Your task to perform on an android device: Open notification settings Image 0: 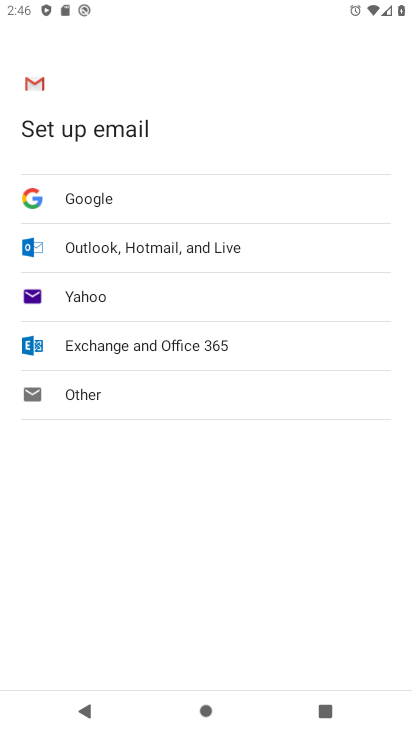
Step 0: press home button
Your task to perform on an android device: Open notification settings Image 1: 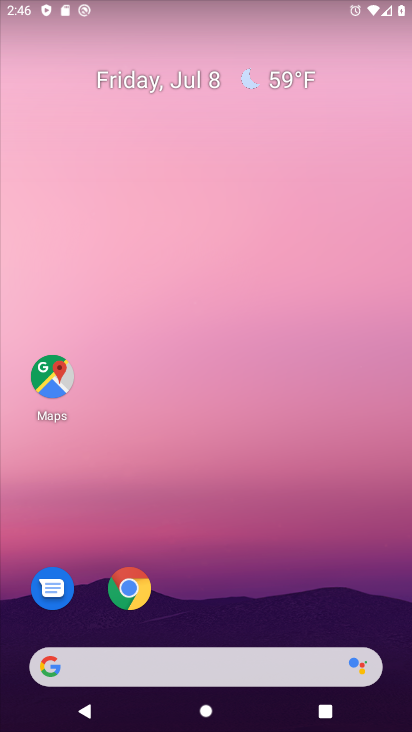
Step 1: drag from (174, 613) to (177, 60)
Your task to perform on an android device: Open notification settings Image 2: 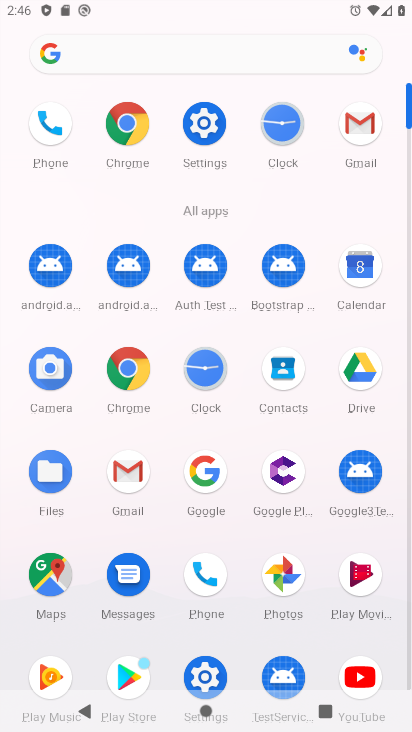
Step 2: click (204, 669)
Your task to perform on an android device: Open notification settings Image 3: 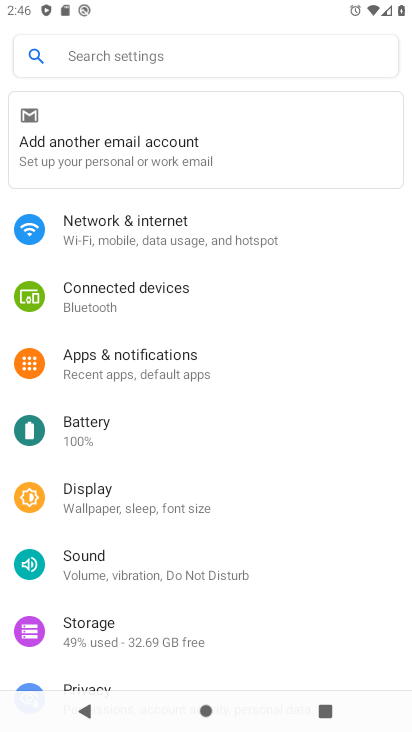
Step 3: click (149, 356)
Your task to perform on an android device: Open notification settings Image 4: 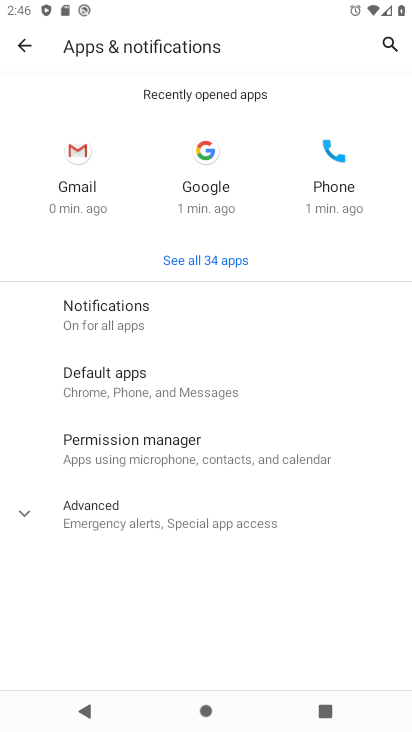
Step 4: click (129, 322)
Your task to perform on an android device: Open notification settings Image 5: 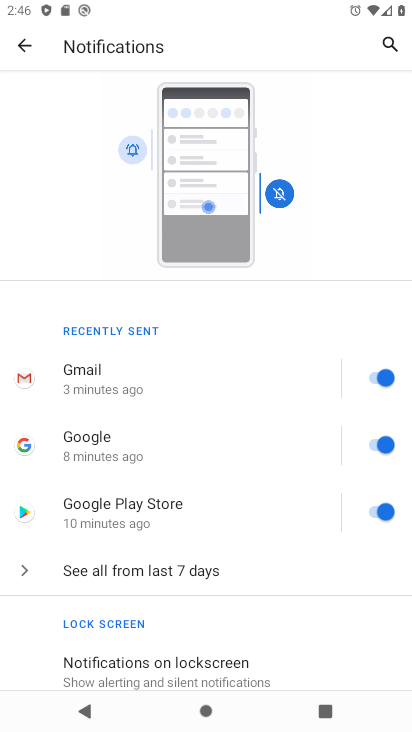
Step 5: task complete